Your task to perform on an android device: star an email in the gmail app Image 0: 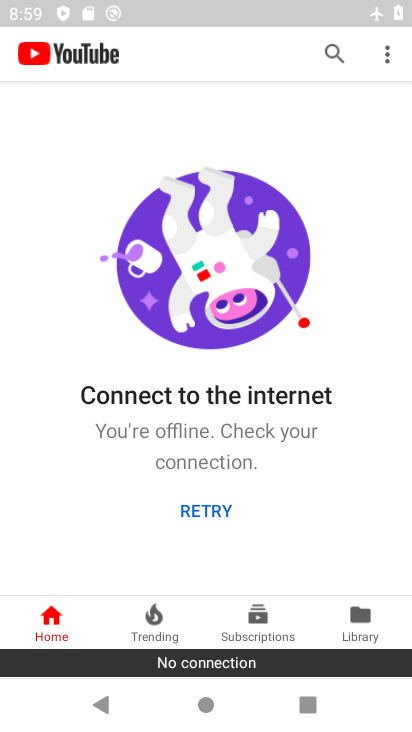
Step 0: press home button
Your task to perform on an android device: star an email in the gmail app Image 1: 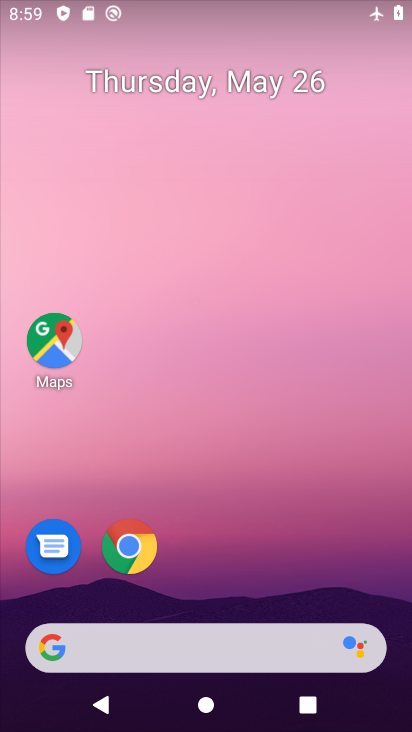
Step 1: drag from (222, 595) to (147, 240)
Your task to perform on an android device: star an email in the gmail app Image 2: 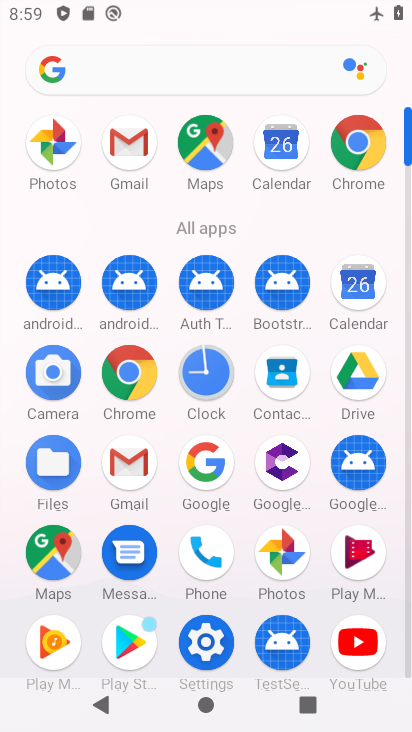
Step 2: click (139, 147)
Your task to perform on an android device: star an email in the gmail app Image 3: 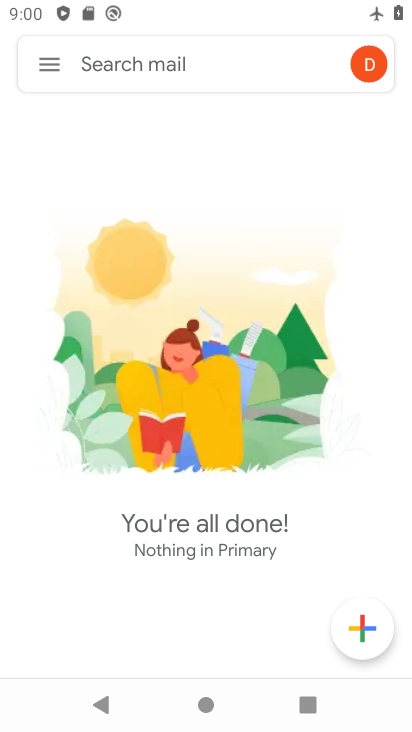
Step 3: task complete